Your task to perform on an android device: open device folders in google photos Image 0: 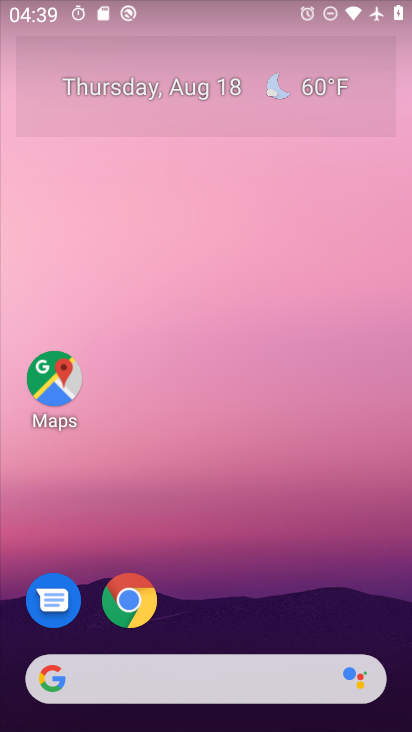
Step 0: press home button
Your task to perform on an android device: open device folders in google photos Image 1: 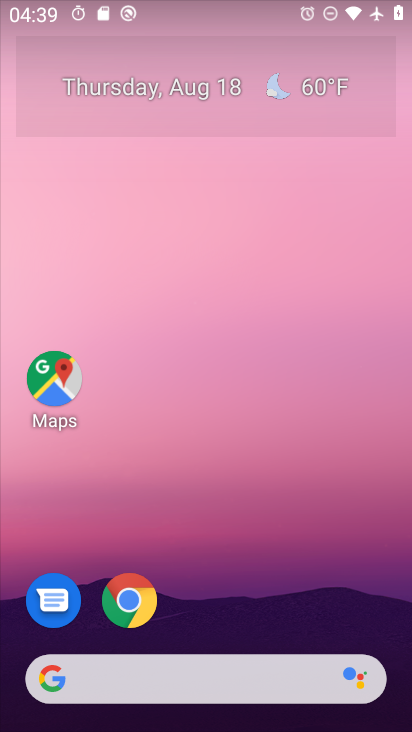
Step 1: drag from (239, 638) to (358, 10)
Your task to perform on an android device: open device folders in google photos Image 2: 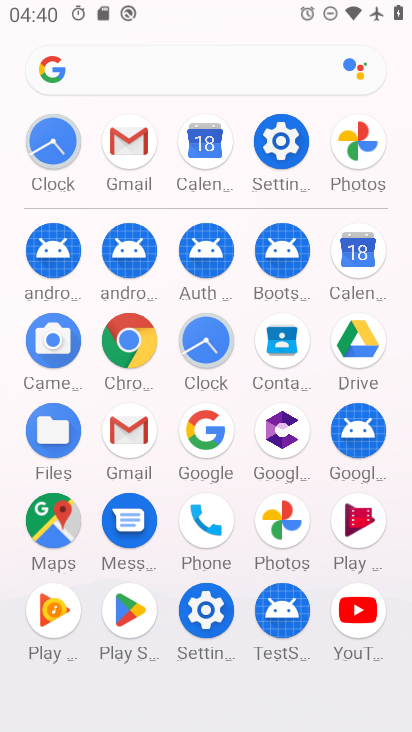
Step 2: click (279, 535)
Your task to perform on an android device: open device folders in google photos Image 3: 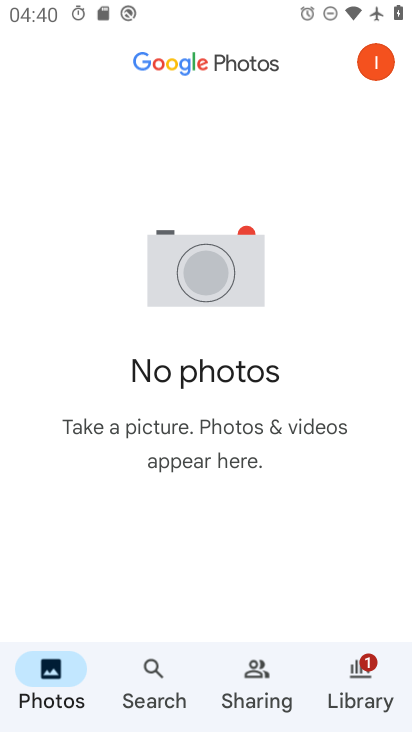
Step 3: click (353, 680)
Your task to perform on an android device: open device folders in google photos Image 4: 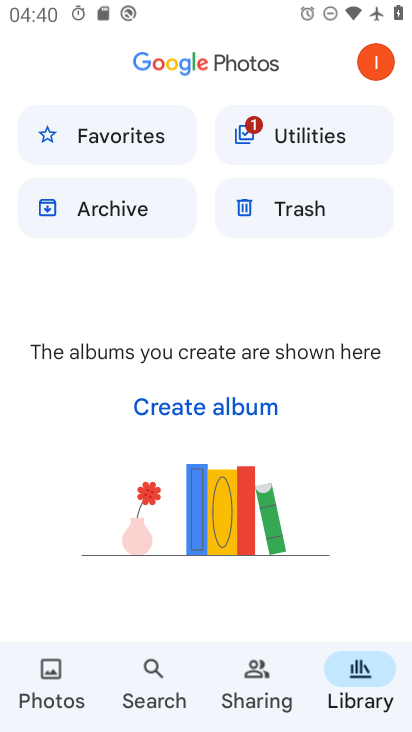
Step 4: task complete